Your task to perform on an android device: empty trash in google photos Image 0: 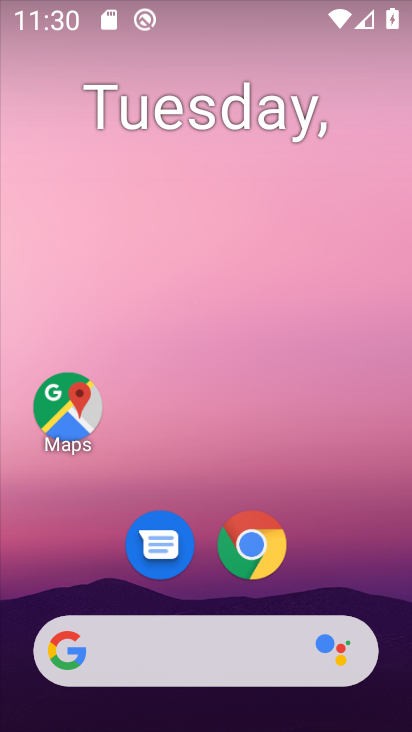
Step 0: drag from (348, 495) to (361, 73)
Your task to perform on an android device: empty trash in google photos Image 1: 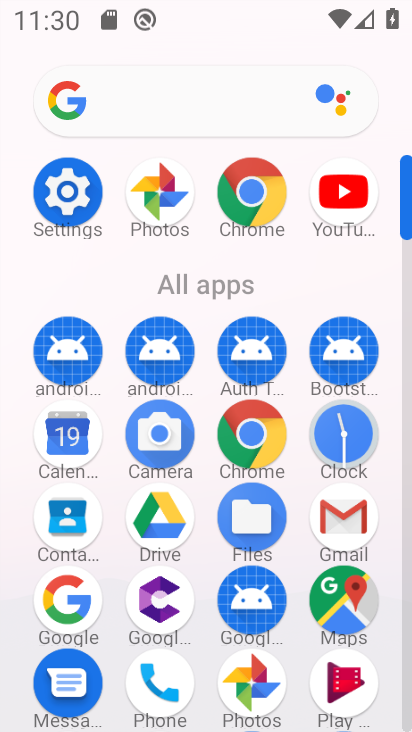
Step 1: click (174, 190)
Your task to perform on an android device: empty trash in google photos Image 2: 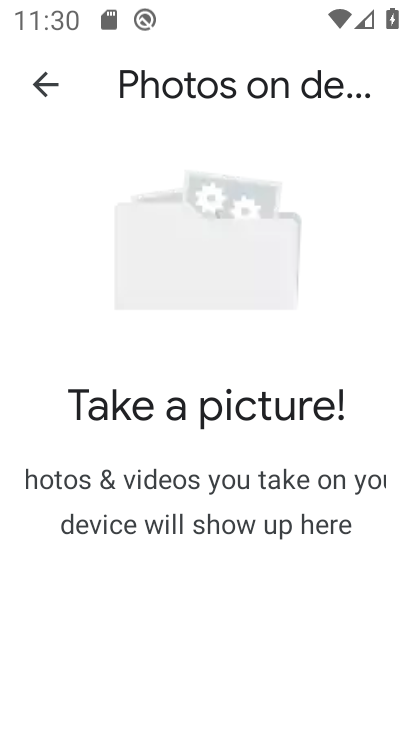
Step 2: click (47, 80)
Your task to perform on an android device: empty trash in google photos Image 3: 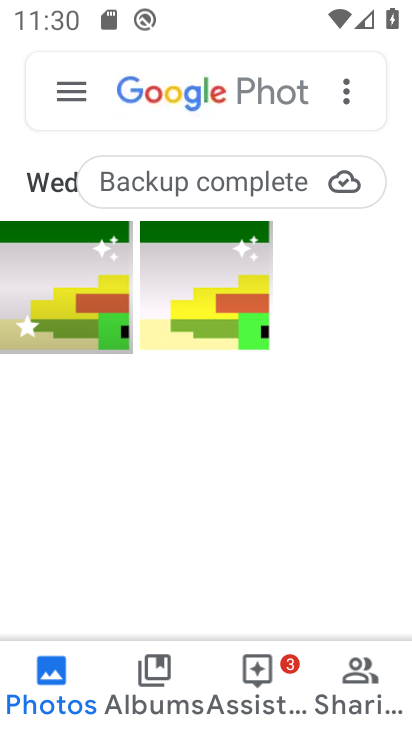
Step 3: click (69, 90)
Your task to perform on an android device: empty trash in google photos Image 4: 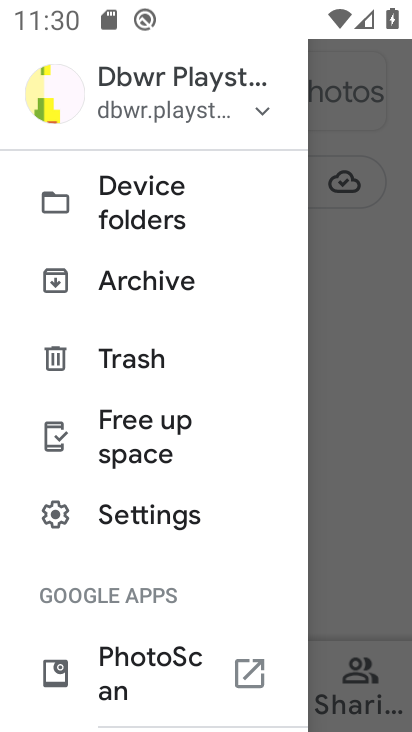
Step 4: click (135, 356)
Your task to perform on an android device: empty trash in google photos Image 5: 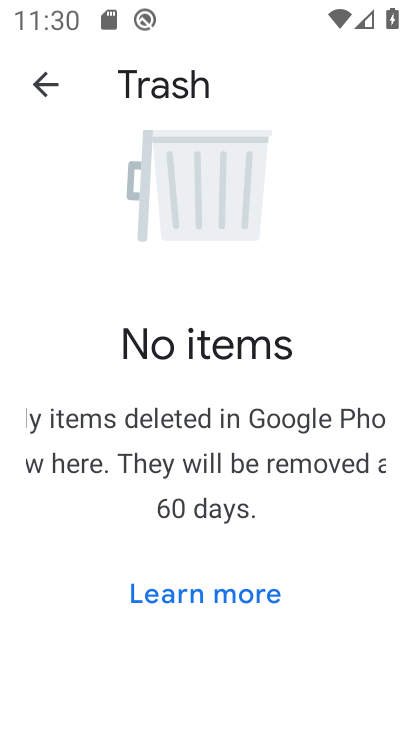
Step 5: task complete